Your task to perform on an android device: turn off data saver in the chrome app Image 0: 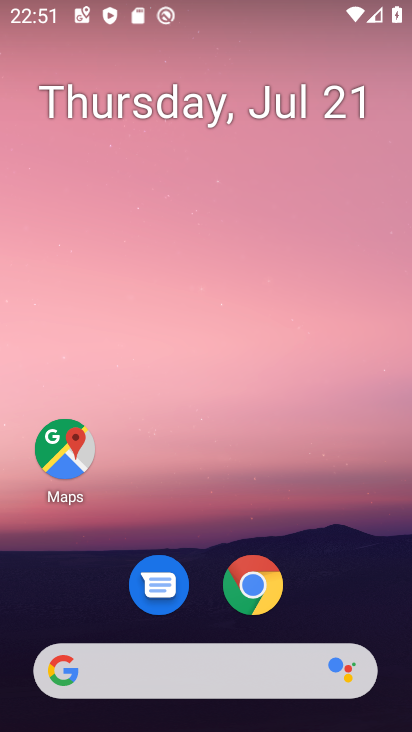
Step 0: drag from (198, 676) to (339, 410)
Your task to perform on an android device: turn off data saver in the chrome app Image 1: 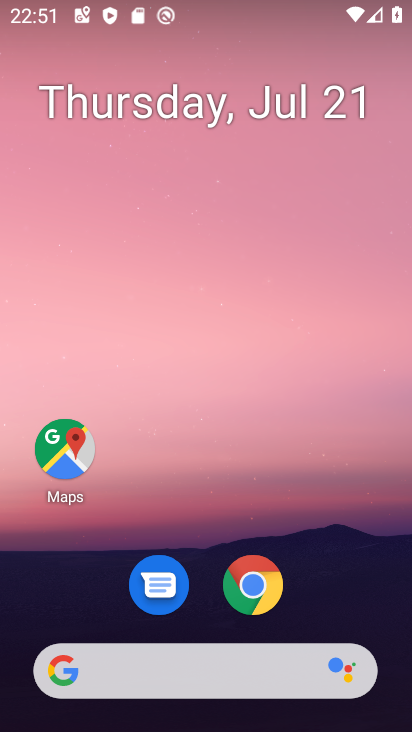
Step 1: click (247, 582)
Your task to perform on an android device: turn off data saver in the chrome app Image 2: 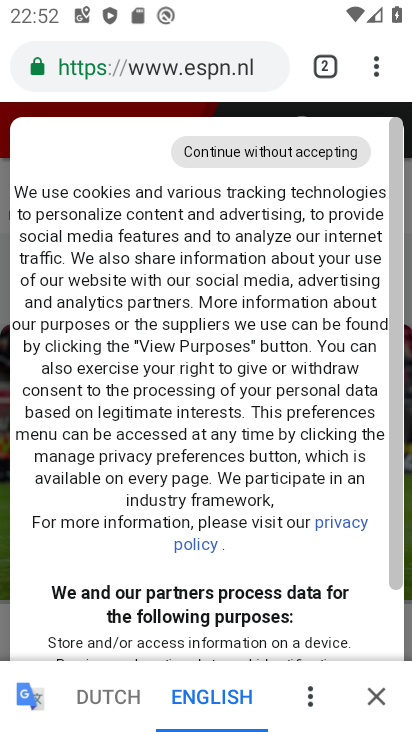
Step 2: drag from (377, 68) to (188, 576)
Your task to perform on an android device: turn off data saver in the chrome app Image 3: 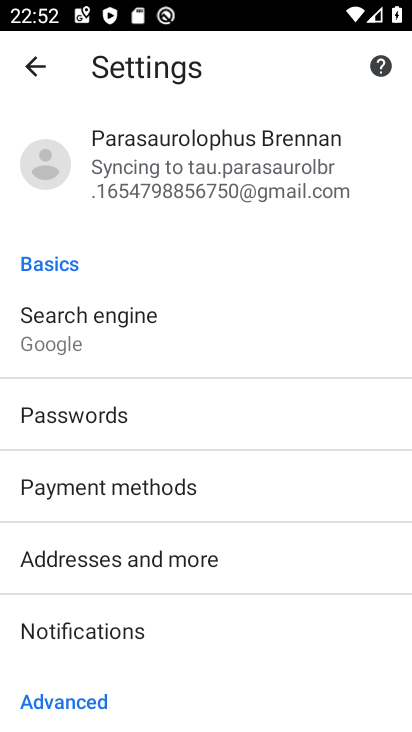
Step 3: drag from (188, 676) to (344, 290)
Your task to perform on an android device: turn off data saver in the chrome app Image 4: 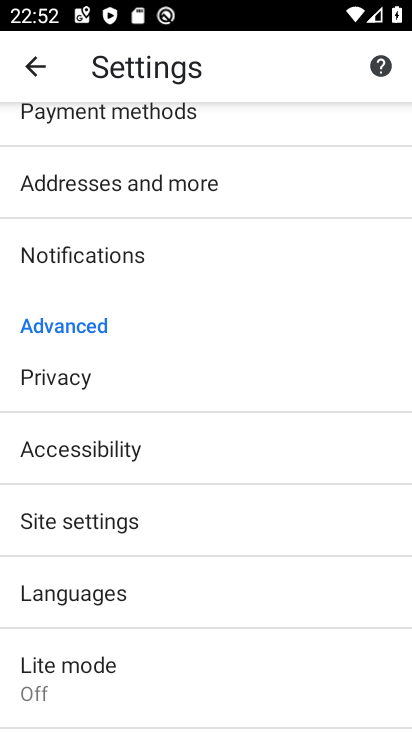
Step 4: click (60, 669)
Your task to perform on an android device: turn off data saver in the chrome app Image 5: 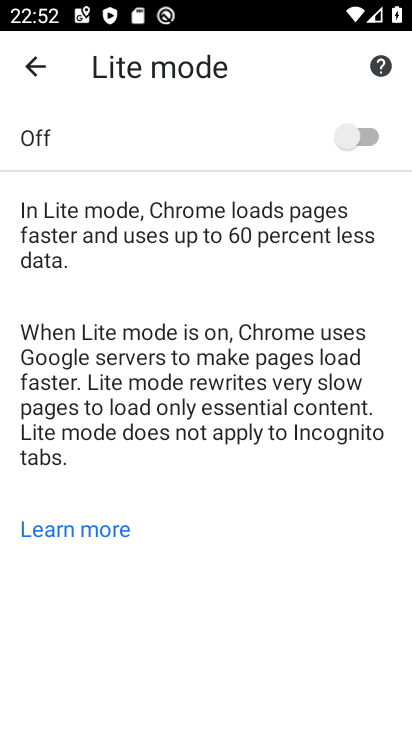
Step 5: task complete